Your task to perform on an android device: change keyboard looks Image 0: 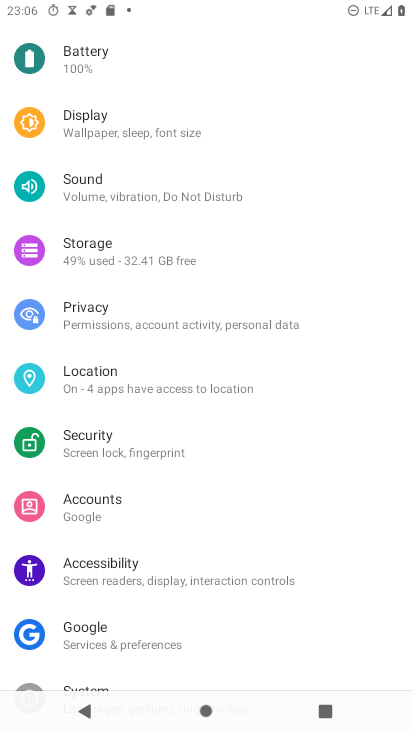
Step 0: press back button
Your task to perform on an android device: change keyboard looks Image 1: 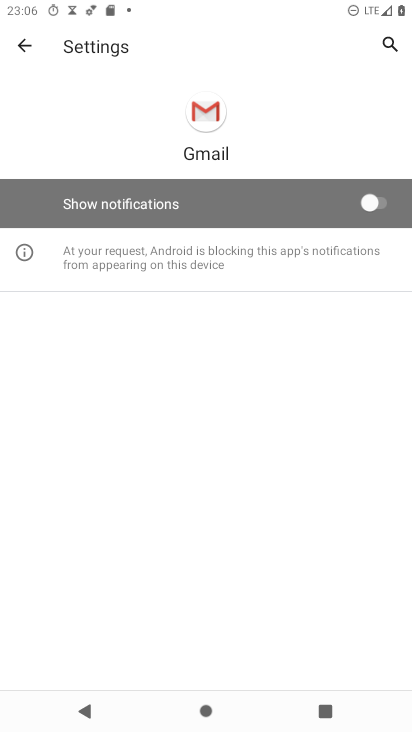
Step 1: press back button
Your task to perform on an android device: change keyboard looks Image 2: 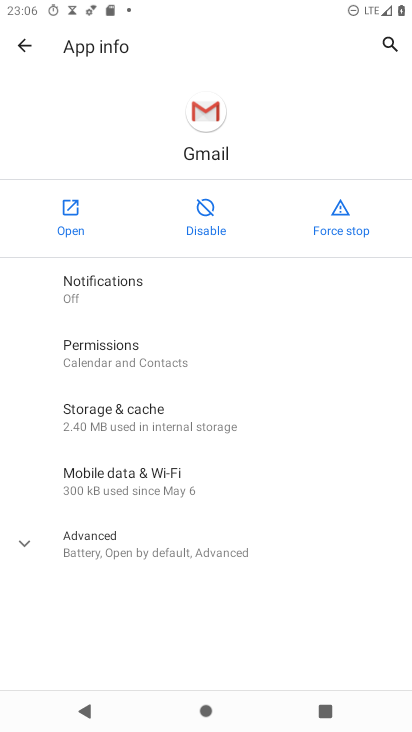
Step 2: press back button
Your task to perform on an android device: change keyboard looks Image 3: 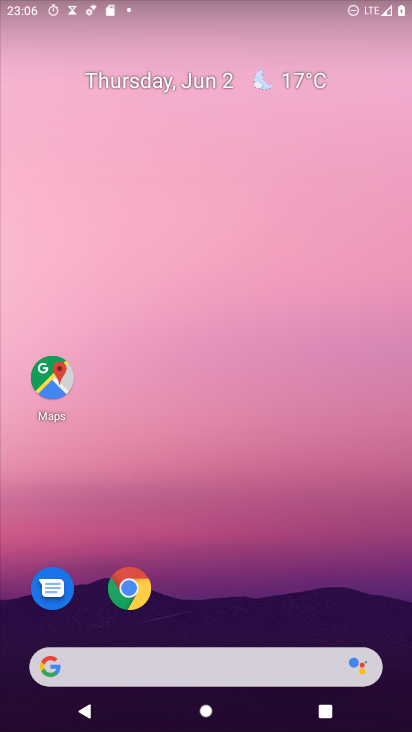
Step 3: drag from (317, 605) to (289, 54)
Your task to perform on an android device: change keyboard looks Image 4: 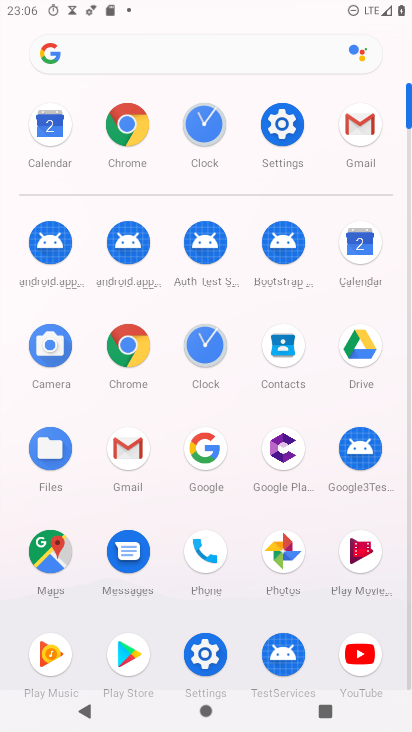
Step 4: click (280, 125)
Your task to perform on an android device: change keyboard looks Image 5: 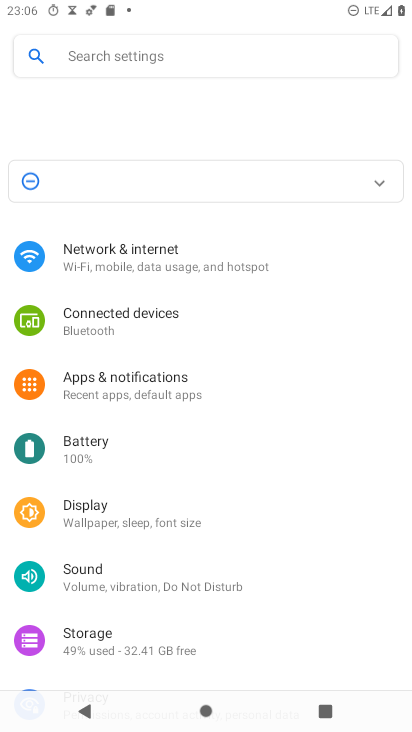
Step 5: drag from (152, 620) to (215, 67)
Your task to perform on an android device: change keyboard looks Image 6: 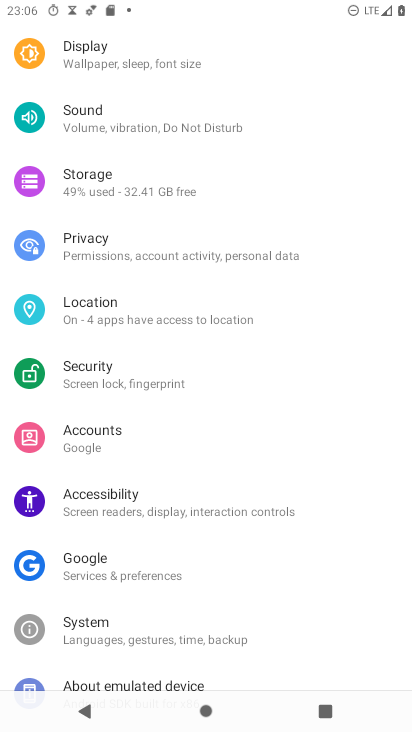
Step 6: drag from (211, 568) to (272, 42)
Your task to perform on an android device: change keyboard looks Image 7: 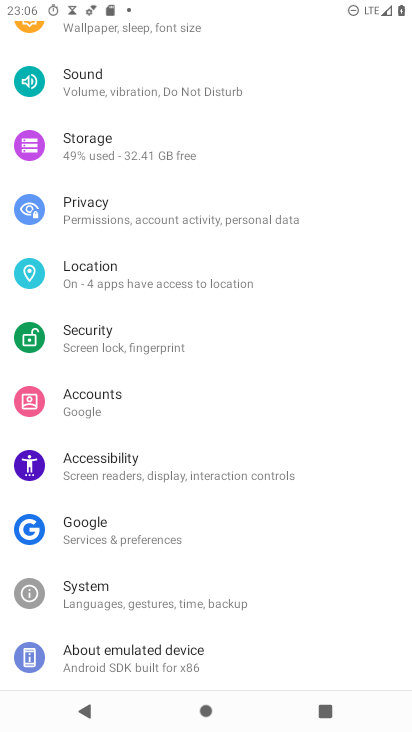
Step 7: drag from (167, 634) to (203, 64)
Your task to perform on an android device: change keyboard looks Image 8: 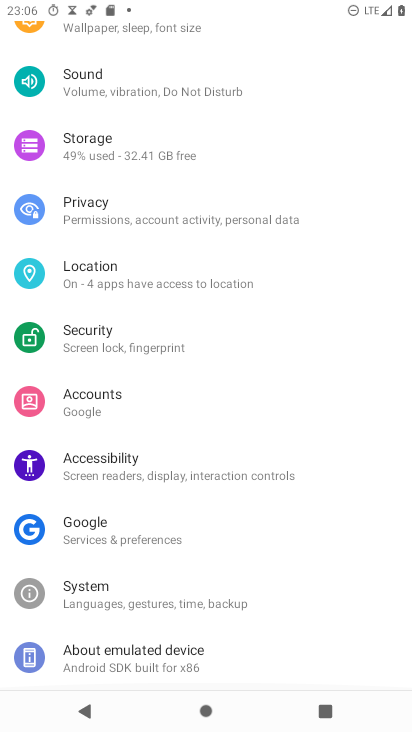
Step 8: click (127, 606)
Your task to perform on an android device: change keyboard looks Image 9: 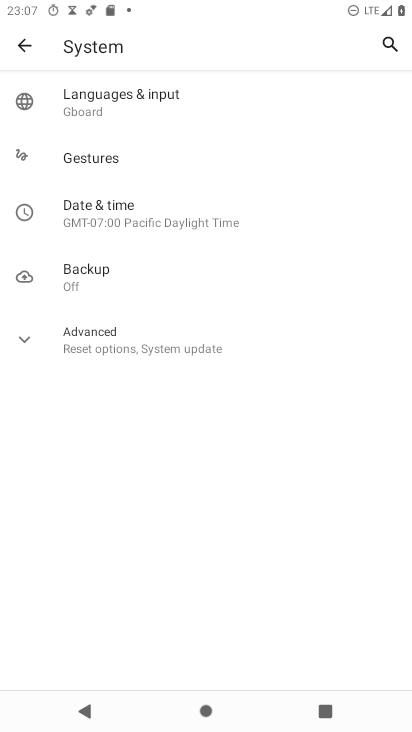
Step 9: click (104, 104)
Your task to perform on an android device: change keyboard looks Image 10: 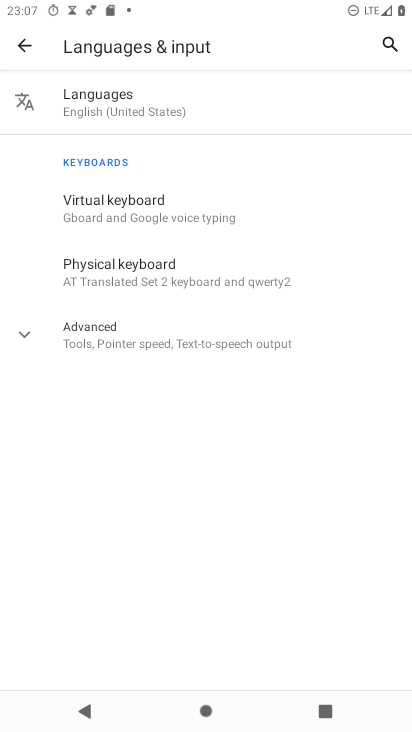
Step 10: click (132, 182)
Your task to perform on an android device: change keyboard looks Image 11: 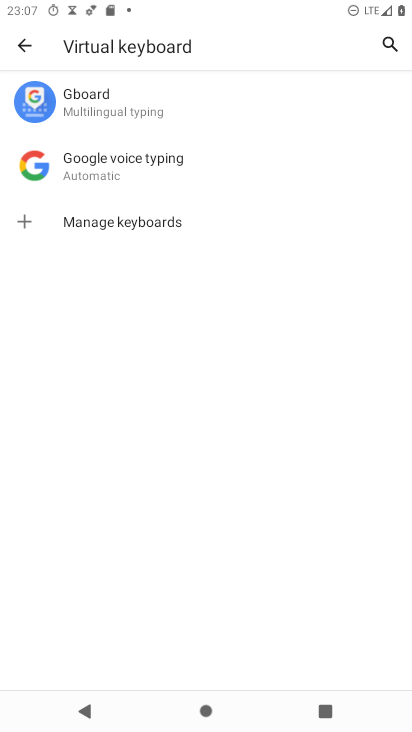
Step 11: click (91, 95)
Your task to perform on an android device: change keyboard looks Image 12: 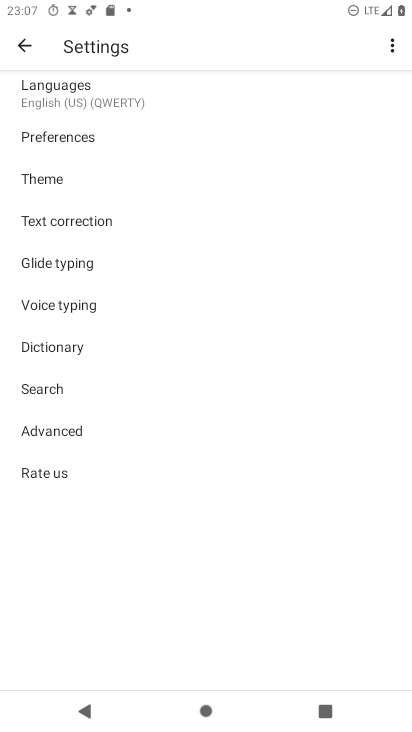
Step 12: click (86, 177)
Your task to perform on an android device: change keyboard looks Image 13: 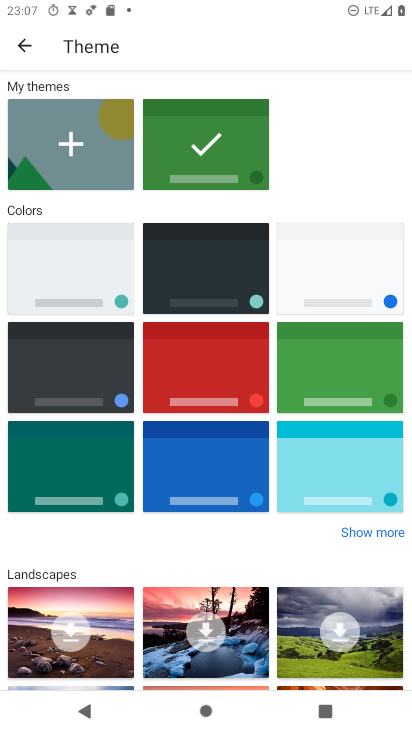
Step 13: click (317, 374)
Your task to perform on an android device: change keyboard looks Image 14: 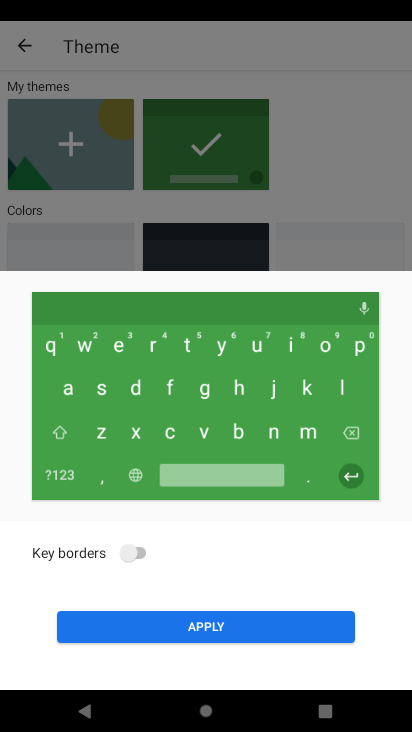
Step 14: click (113, 529)
Your task to perform on an android device: change keyboard looks Image 15: 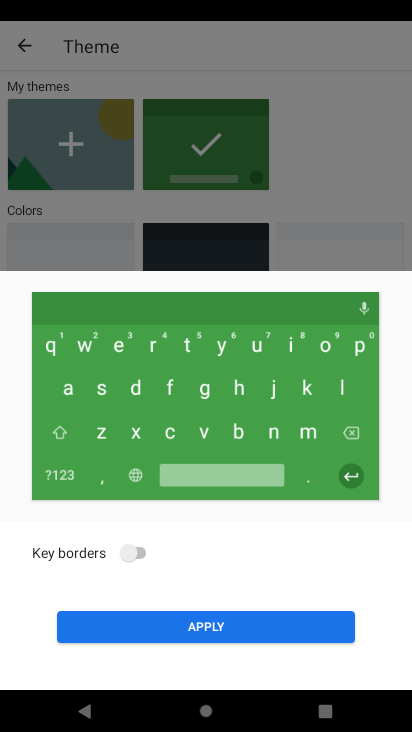
Step 15: click (130, 554)
Your task to perform on an android device: change keyboard looks Image 16: 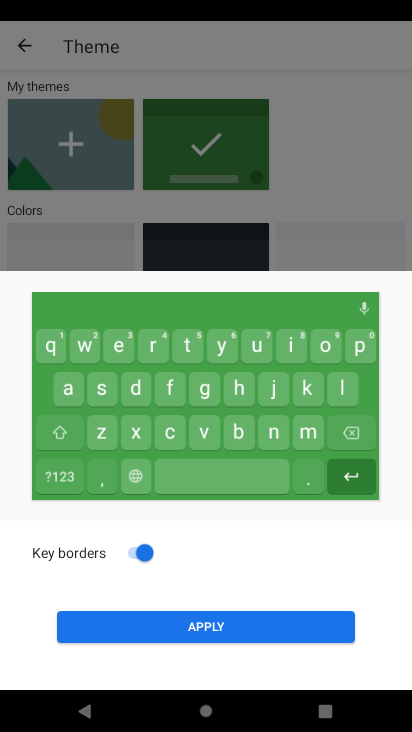
Step 16: click (171, 631)
Your task to perform on an android device: change keyboard looks Image 17: 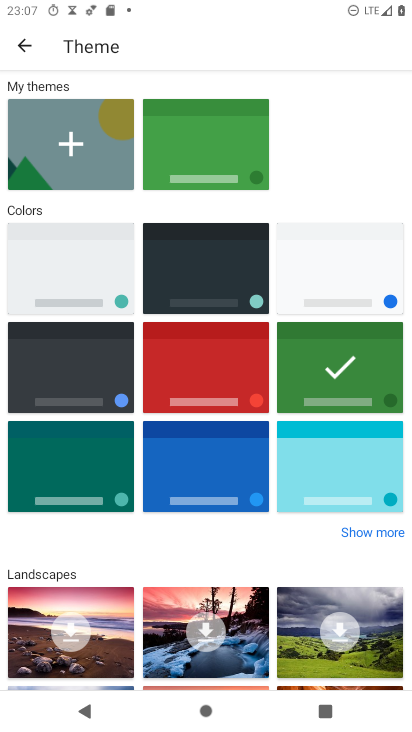
Step 17: task complete